Your task to perform on an android device: turn off notifications settings in the gmail app Image 0: 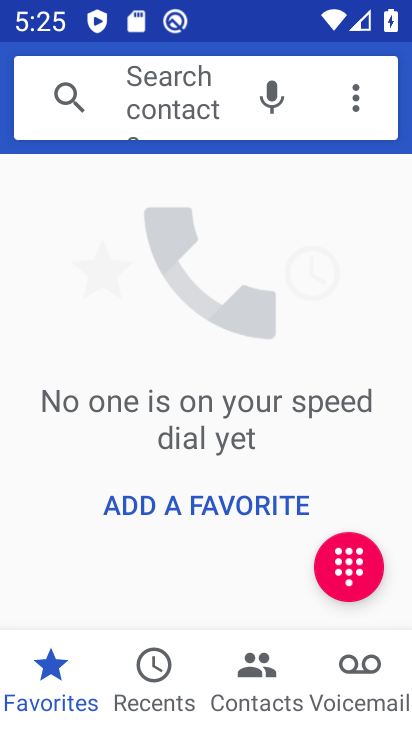
Step 0: press back button
Your task to perform on an android device: turn off notifications settings in the gmail app Image 1: 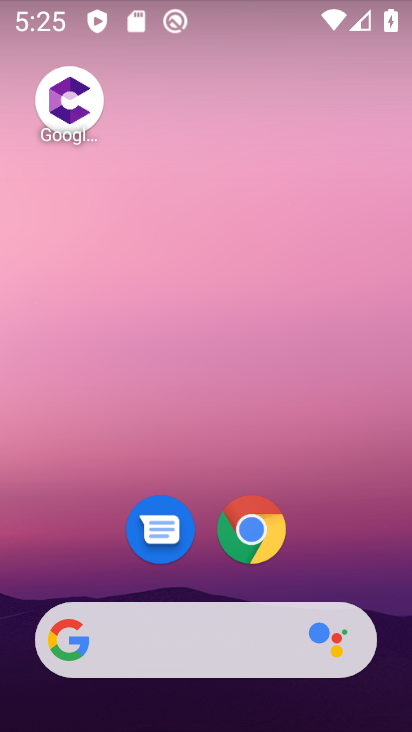
Step 1: drag from (323, 546) to (243, 74)
Your task to perform on an android device: turn off notifications settings in the gmail app Image 2: 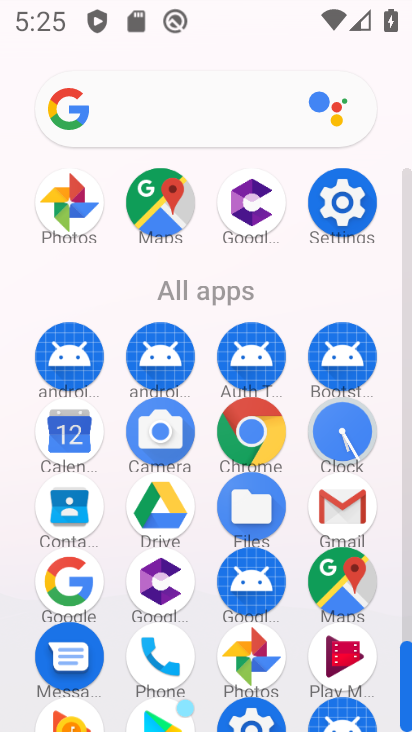
Step 2: click (337, 506)
Your task to perform on an android device: turn off notifications settings in the gmail app Image 3: 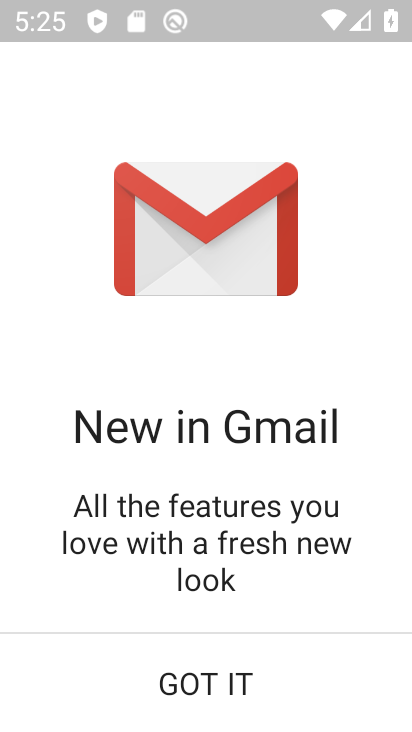
Step 3: click (188, 681)
Your task to perform on an android device: turn off notifications settings in the gmail app Image 4: 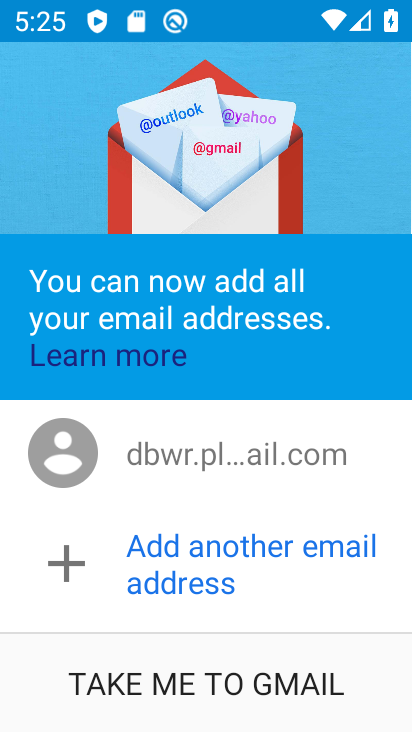
Step 4: click (176, 667)
Your task to perform on an android device: turn off notifications settings in the gmail app Image 5: 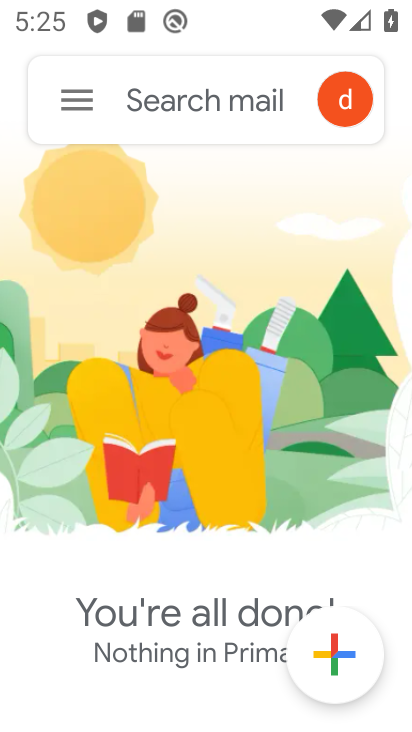
Step 5: click (65, 101)
Your task to perform on an android device: turn off notifications settings in the gmail app Image 6: 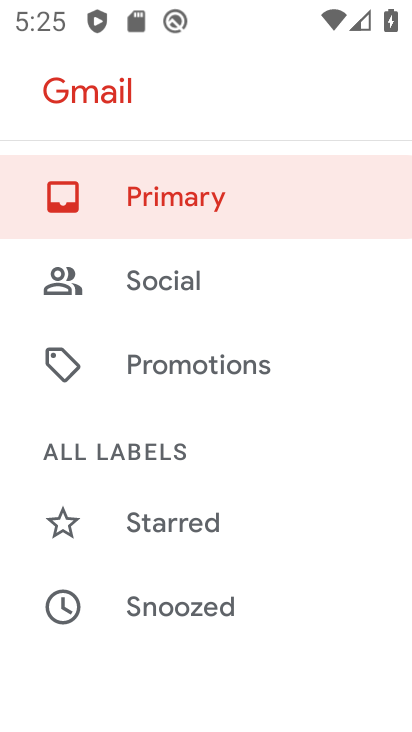
Step 6: drag from (157, 522) to (247, 338)
Your task to perform on an android device: turn off notifications settings in the gmail app Image 7: 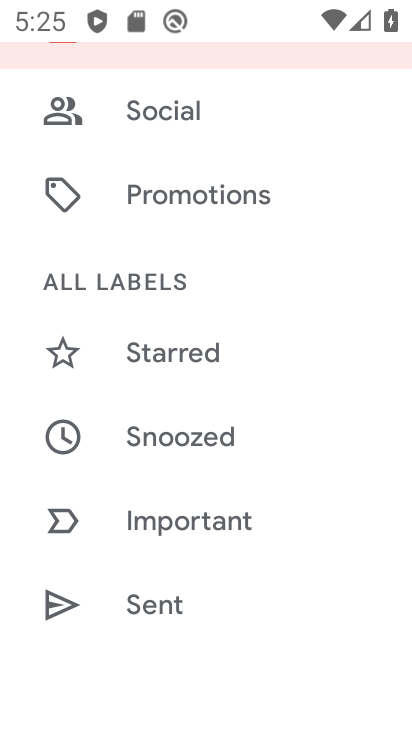
Step 7: drag from (174, 542) to (258, 377)
Your task to perform on an android device: turn off notifications settings in the gmail app Image 8: 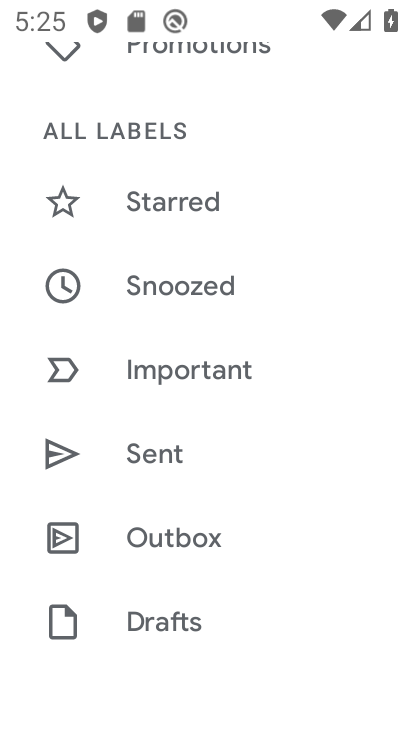
Step 8: drag from (145, 576) to (200, 409)
Your task to perform on an android device: turn off notifications settings in the gmail app Image 9: 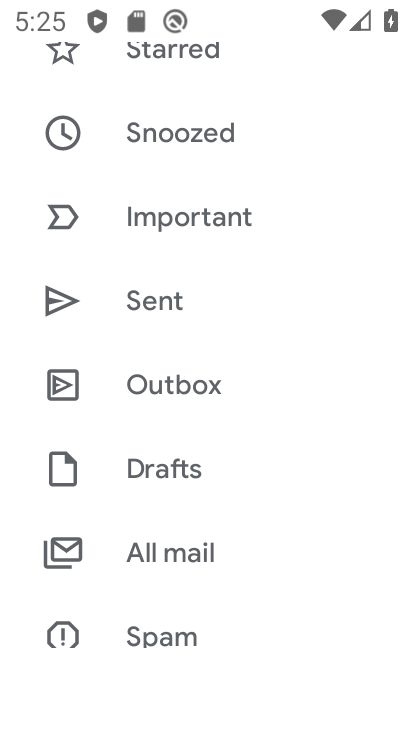
Step 9: drag from (138, 596) to (224, 412)
Your task to perform on an android device: turn off notifications settings in the gmail app Image 10: 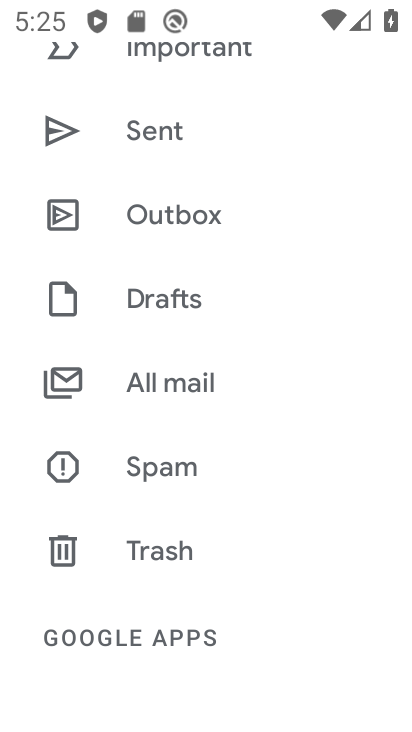
Step 10: drag from (146, 608) to (185, 414)
Your task to perform on an android device: turn off notifications settings in the gmail app Image 11: 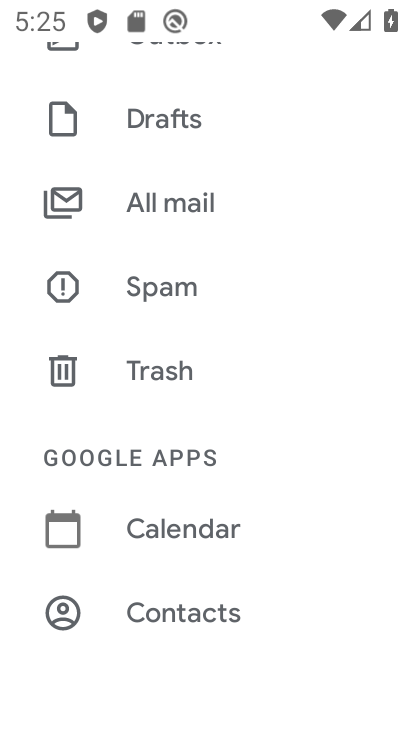
Step 11: drag from (142, 567) to (226, 381)
Your task to perform on an android device: turn off notifications settings in the gmail app Image 12: 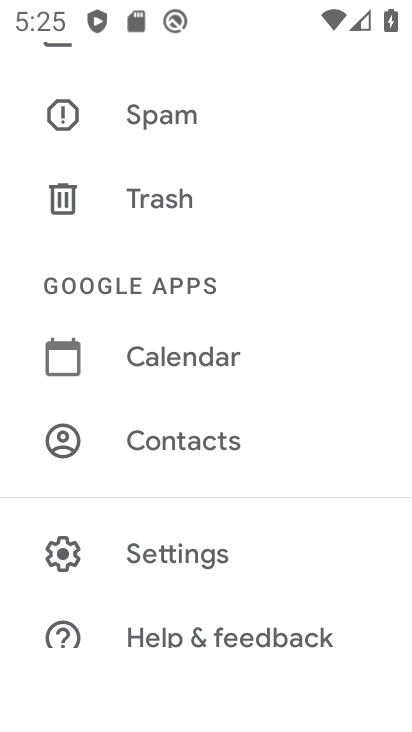
Step 12: click (208, 554)
Your task to perform on an android device: turn off notifications settings in the gmail app Image 13: 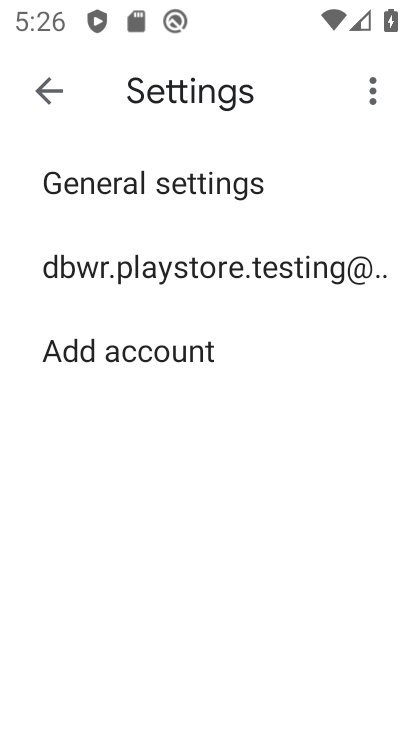
Step 13: click (241, 277)
Your task to perform on an android device: turn off notifications settings in the gmail app Image 14: 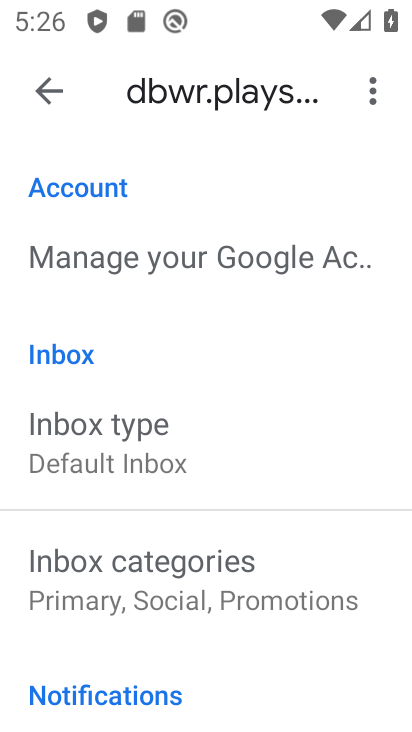
Step 14: drag from (184, 536) to (254, 334)
Your task to perform on an android device: turn off notifications settings in the gmail app Image 15: 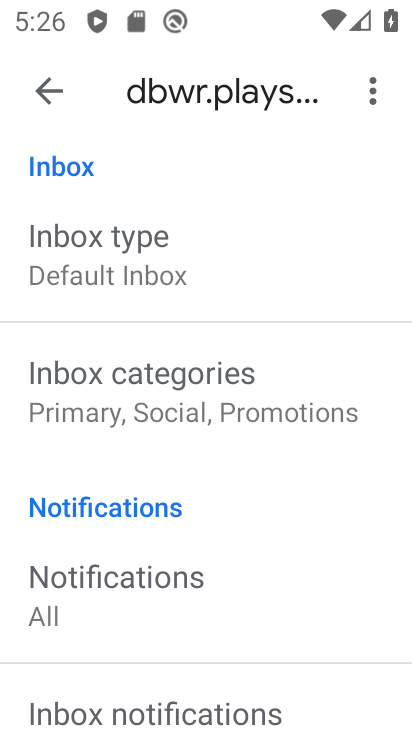
Step 15: drag from (186, 612) to (257, 394)
Your task to perform on an android device: turn off notifications settings in the gmail app Image 16: 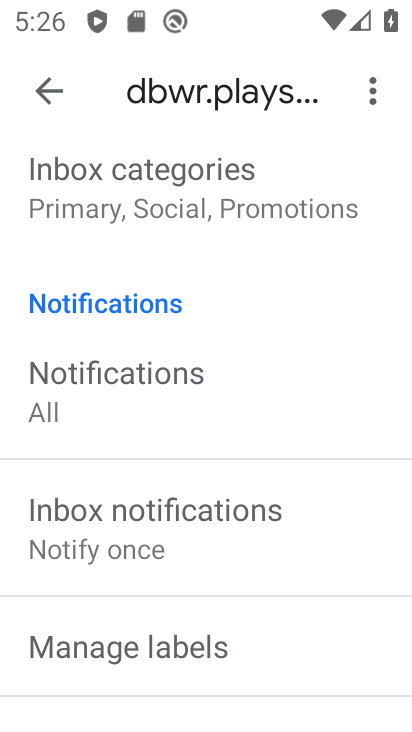
Step 16: drag from (162, 626) to (262, 410)
Your task to perform on an android device: turn off notifications settings in the gmail app Image 17: 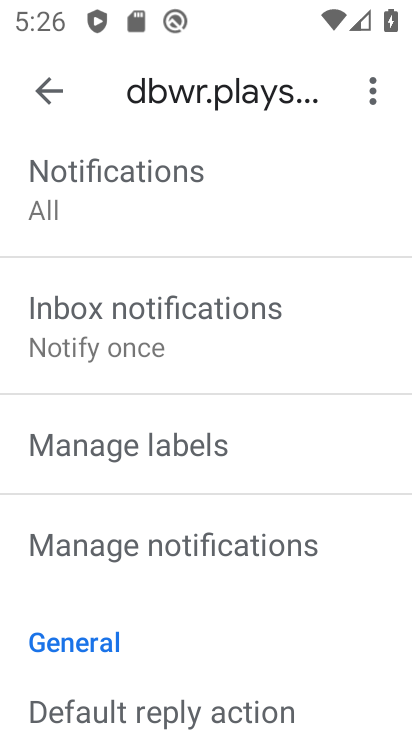
Step 17: click (194, 547)
Your task to perform on an android device: turn off notifications settings in the gmail app Image 18: 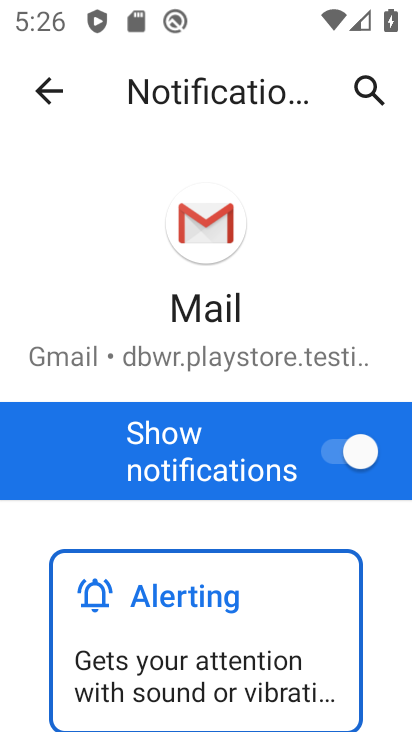
Step 18: click (360, 448)
Your task to perform on an android device: turn off notifications settings in the gmail app Image 19: 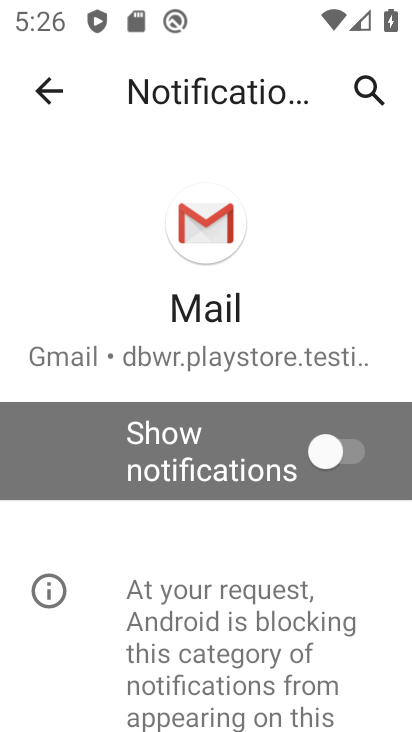
Step 19: task complete